Your task to perform on an android device: turn notification dots off Image 0: 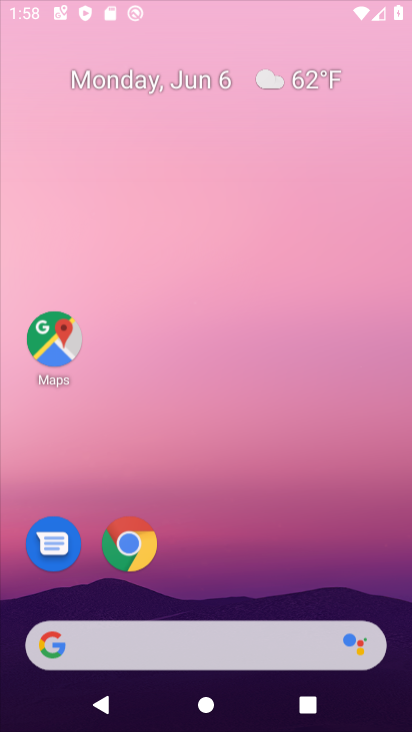
Step 0: drag from (269, 510) to (277, 149)
Your task to perform on an android device: turn notification dots off Image 1: 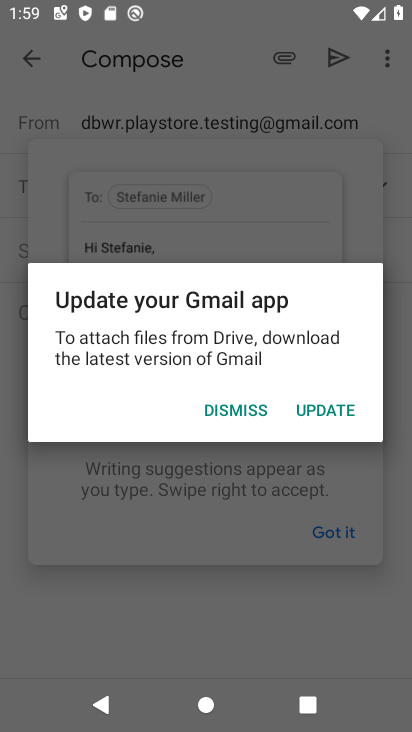
Step 1: press home button
Your task to perform on an android device: turn notification dots off Image 2: 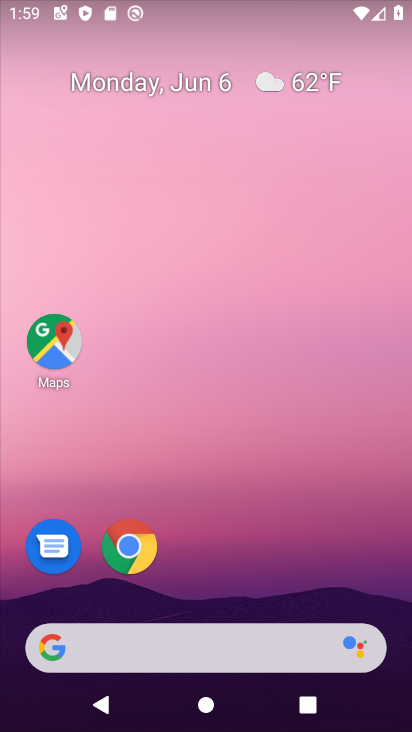
Step 2: drag from (207, 568) to (189, 287)
Your task to perform on an android device: turn notification dots off Image 3: 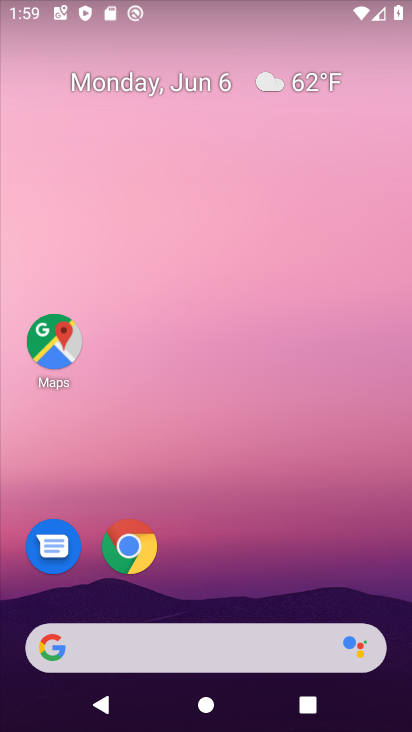
Step 3: drag from (242, 395) to (221, 230)
Your task to perform on an android device: turn notification dots off Image 4: 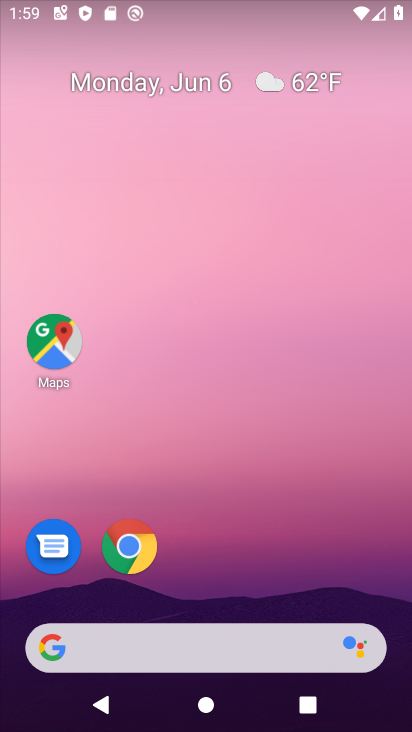
Step 4: drag from (324, 579) to (293, 299)
Your task to perform on an android device: turn notification dots off Image 5: 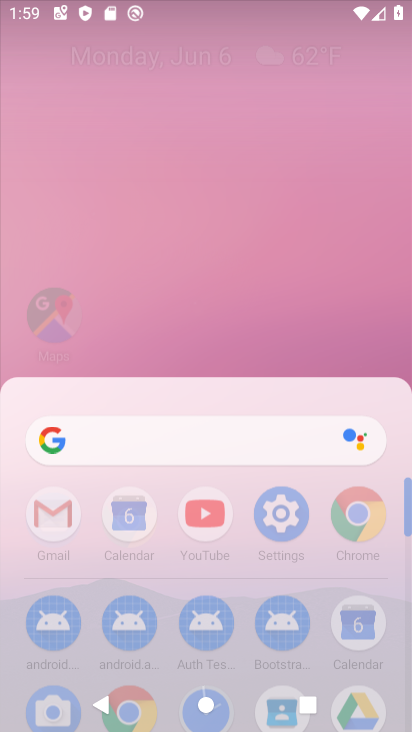
Step 5: click (291, 137)
Your task to perform on an android device: turn notification dots off Image 6: 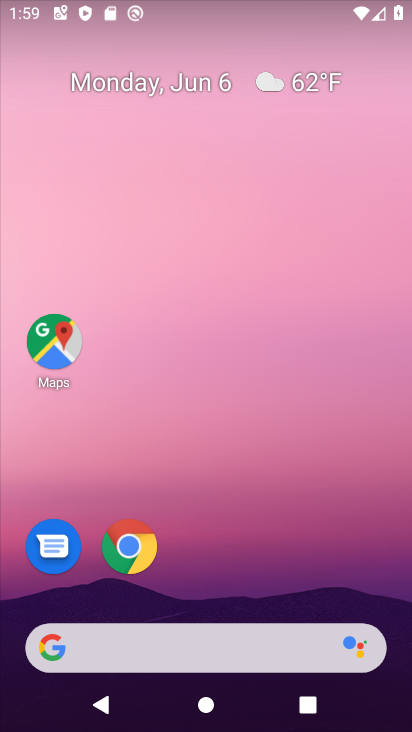
Step 6: drag from (275, 504) to (215, 49)
Your task to perform on an android device: turn notification dots off Image 7: 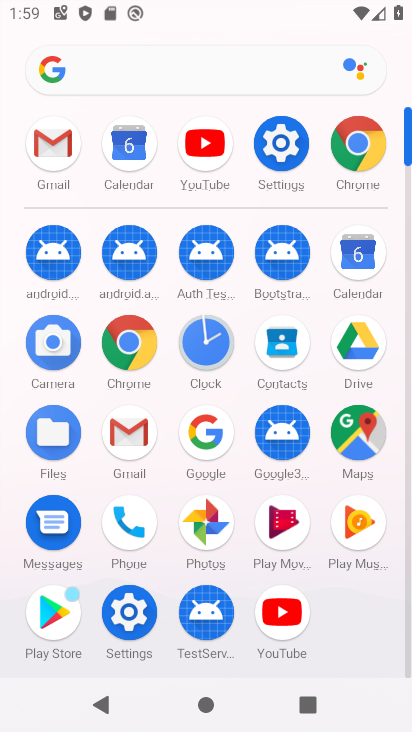
Step 7: click (282, 135)
Your task to perform on an android device: turn notification dots off Image 8: 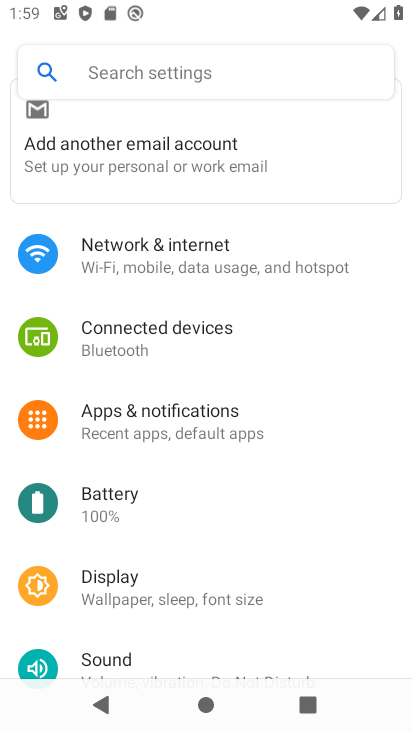
Step 8: click (189, 408)
Your task to perform on an android device: turn notification dots off Image 9: 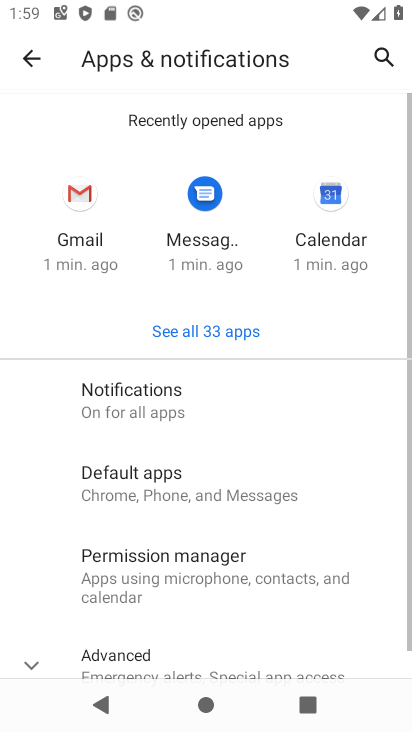
Step 9: click (190, 408)
Your task to perform on an android device: turn notification dots off Image 10: 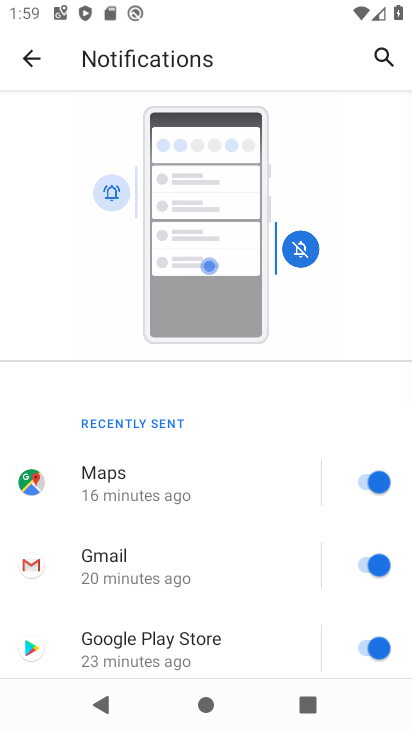
Step 10: drag from (279, 396) to (294, 27)
Your task to perform on an android device: turn notification dots off Image 11: 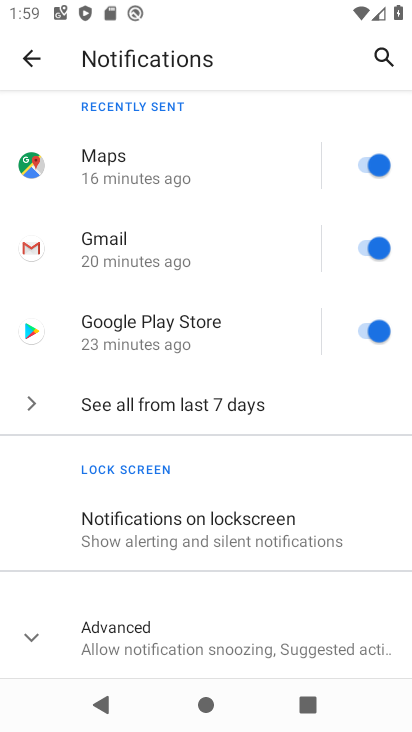
Step 11: click (223, 637)
Your task to perform on an android device: turn notification dots off Image 12: 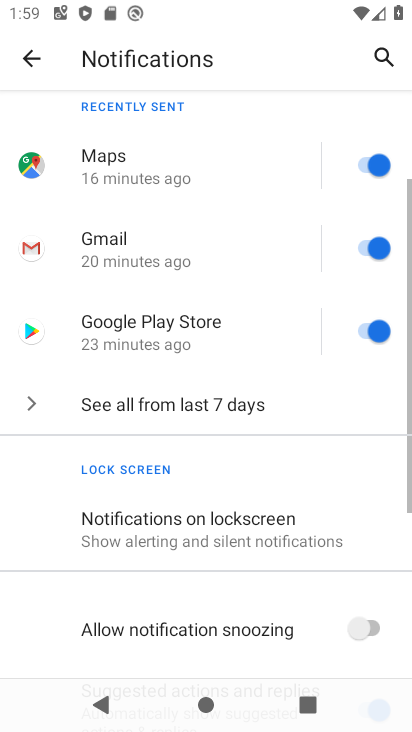
Step 12: drag from (224, 600) to (218, 188)
Your task to perform on an android device: turn notification dots off Image 13: 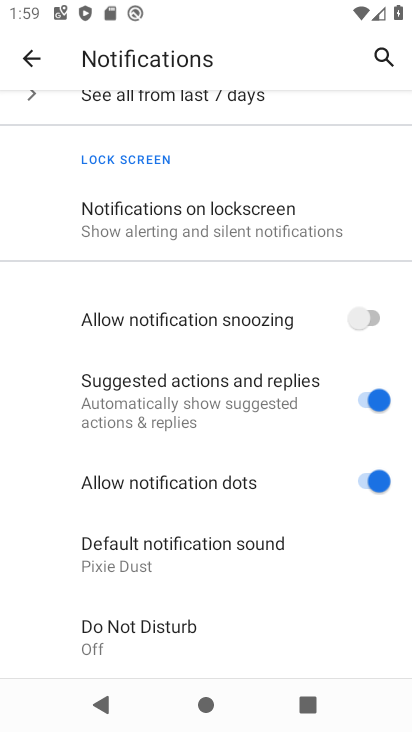
Step 13: click (370, 475)
Your task to perform on an android device: turn notification dots off Image 14: 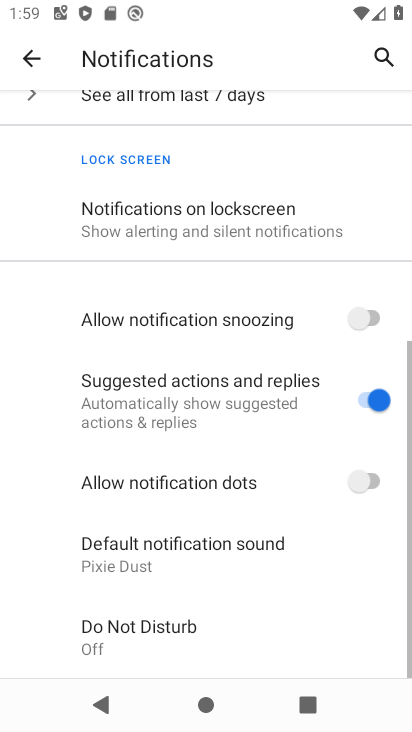
Step 14: task complete